Your task to perform on an android device: View the shopping cart on newegg. Search for razer huntsman on newegg, select the first entry, and add it to the cart. Image 0: 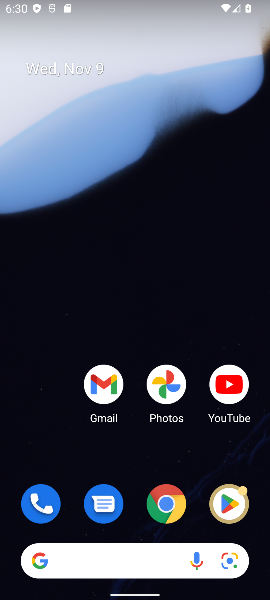
Step 0: click (164, 512)
Your task to perform on an android device: View the shopping cart on newegg. Search for razer huntsman on newegg, select the first entry, and add it to the cart. Image 1: 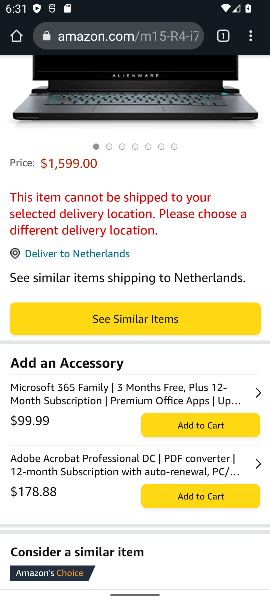
Step 1: click (122, 34)
Your task to perform on an android device: View the shopping cart on newegg. Search for razer huntsman on newegg, select the first entry, and add it to the cart. Image 2: 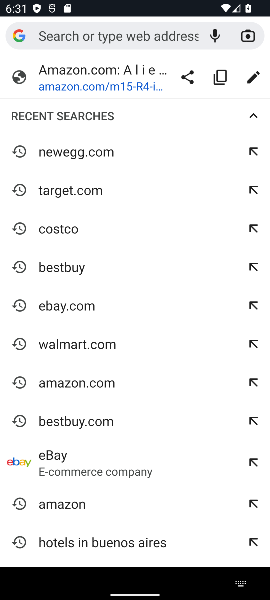
Step 2: type "newegg"
Your task to perform on an android device: View the shopping cart on newegg. Search for razer huntsman on newegg, select the first entry, and add it to the cart. Image 3: 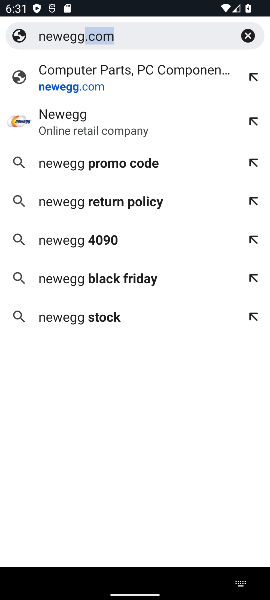
Step 3: click (128, 76)
Your task to perform on an android device: View the shopping cart on newegg. Search for razer huntsman on newegg, select the first entry, and add it to the cart. Image 4: 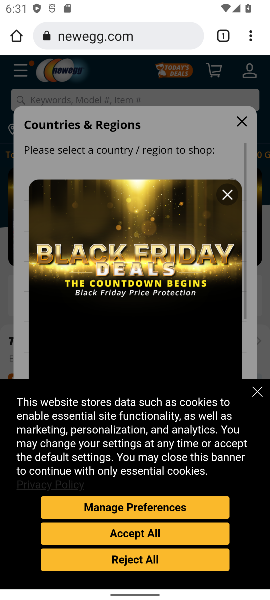
Step 4: click (140, 537)
Your task to perform on an android device: View the shopping cart on newegg. Search for razer huntsman on newegg, select the first entry, and add it to the cart. Image 5: 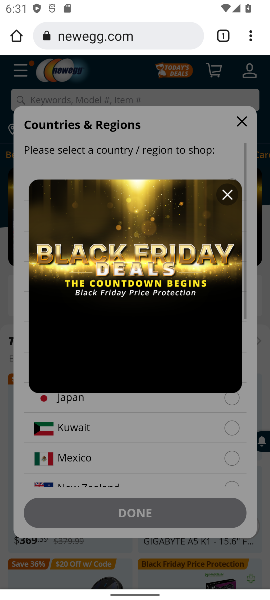
Step 5: click (228, 195)
Your task to perform on an android device: View the shopping cart on newegg. Search for razer huntsman on newegg, select the first entry, and add it to the cart. Image 6: 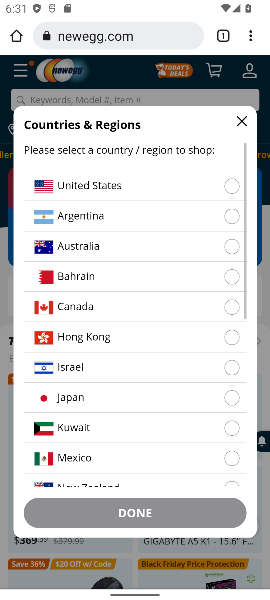
Step 6: click (183, 187)
Your task to perform on an android device: View the shopping cart on newegg. Search for razer huntsman on newegg, select the first entry, and add it to the cart. Image 7: 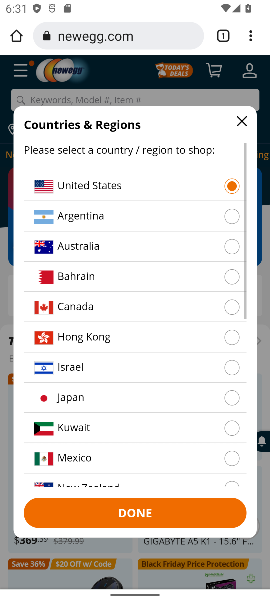
Step 7: click (178, 520)
Your task to perform on an android device: View the shopping cart on newegg. Search for razer huntsman on newegg, select the first entry, and add it to the cart. Image 8: 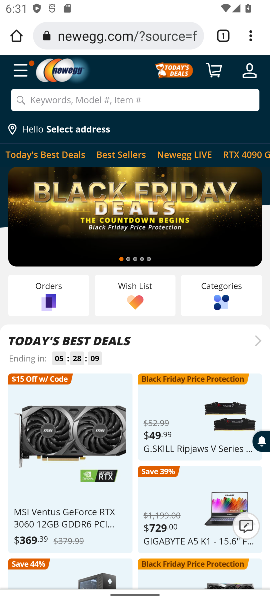
Step 8: click (141, 95)
Your task to perform on an android device: View the shopping cart on newegg. Search for razer huntsman on newegg, select the first entry, and add it to the cart. Image 9: 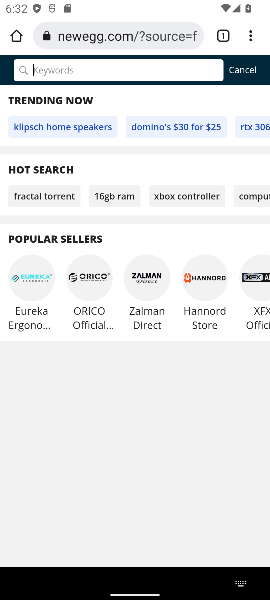
Step 9: type "razer huntsman"
Your task to perform on an android device: View the shopping cart on newegg. Search for razer huntsman on newegg, select the first entry, and add it to the cart. Image 10: 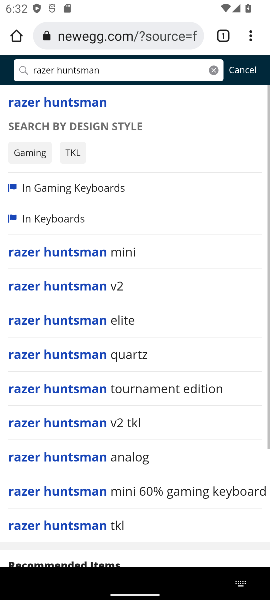
Step 10: press enter
Your task to perform on an android device: View the shopping cart on newegg. Search for razer huntsman on newegg, select the first entry, and add it to the cart. Image 11: 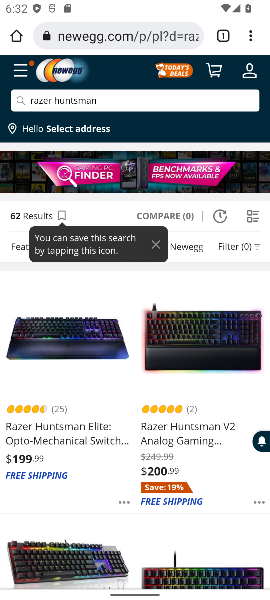
Step 11: click (90, 368)
Your task to perform on an android device: View the shopping cart on newegg. Search for razer huntsman on newegg, select the first entry, and add it to the cart. Image 12: 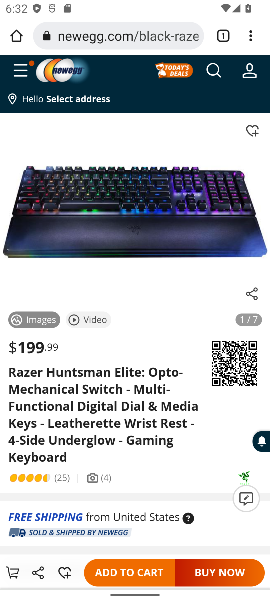
Step 12: click (126, 575)
Your task to perform on an android device: View the shopping cart on newegg. Search for razer huntsman on newegg, select the first entry, and add it to the cart. Image 13: 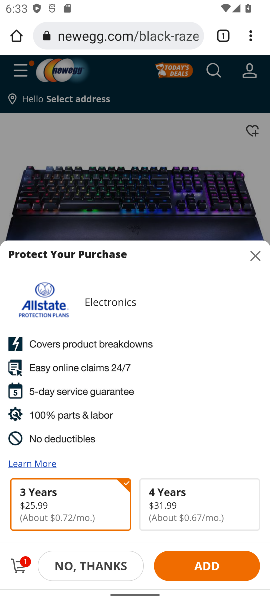
Step 13: click (102, 564)
Your task to perform on an android device: View the shopping cart on newegg. Search for razer huntsman on newegg, select the first entry, and add it to the cart. Image 14: 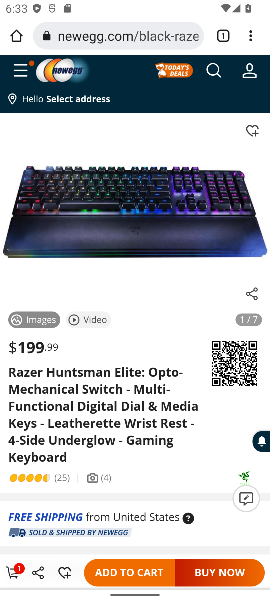
Step 14: task complete